Your task to perform on an android device: find snoozed emails in the gmail app Image 0: 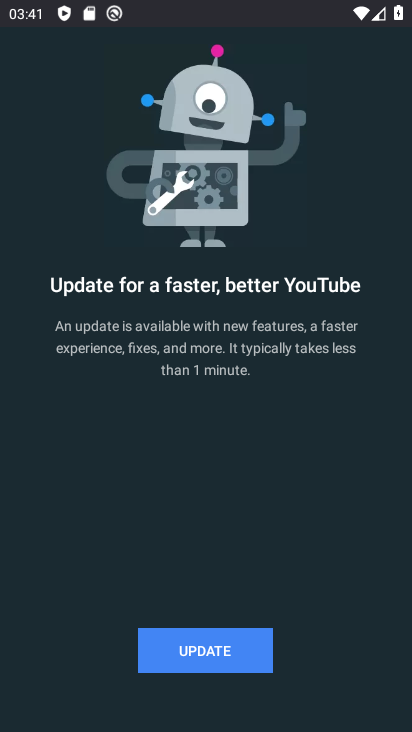
Step 0: press home button
Your task to perform on an android device: find snoozed emails in the gmail app Image 1: 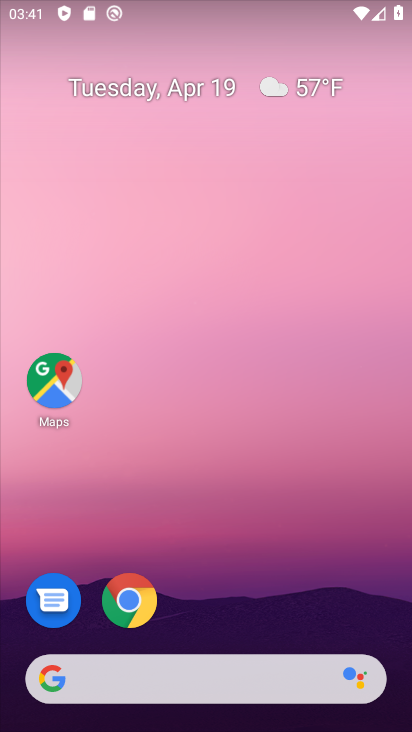
Step 1: drag from (279, 581) to (136, 153)
Your task to perform on an android device: find snoozed emails in the gmail app Image 2: 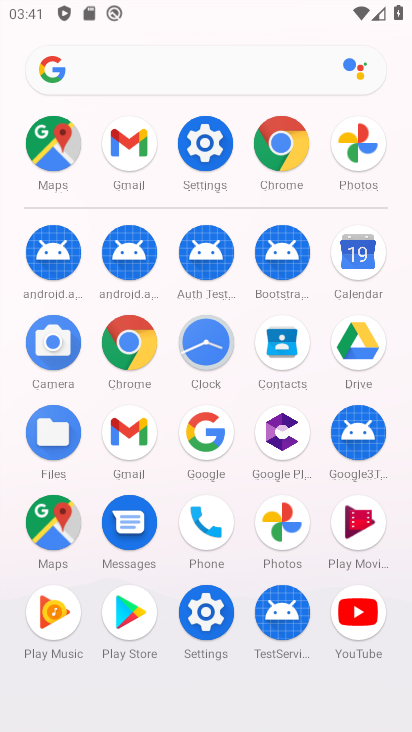
Step 2: click (141, 153)
Your task to perform on an android device: find snoozed emails in the gmail app Image 3: 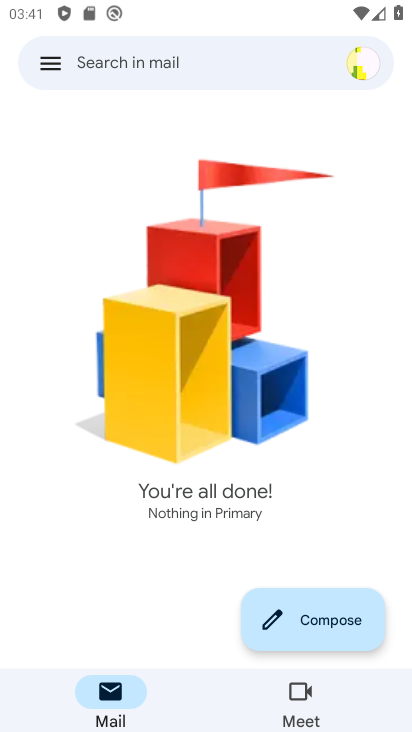
Step 3: click (50, 65)
Your task to perform on an android device: find snoozed emails in the gmail app Image 4: 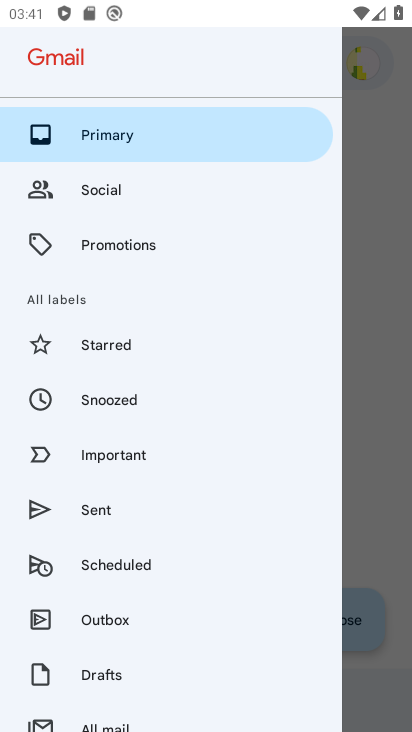
Step 4: click (195, 399)
Your task to perform on an android device: find snoozed emails in the gmail app Image 5: 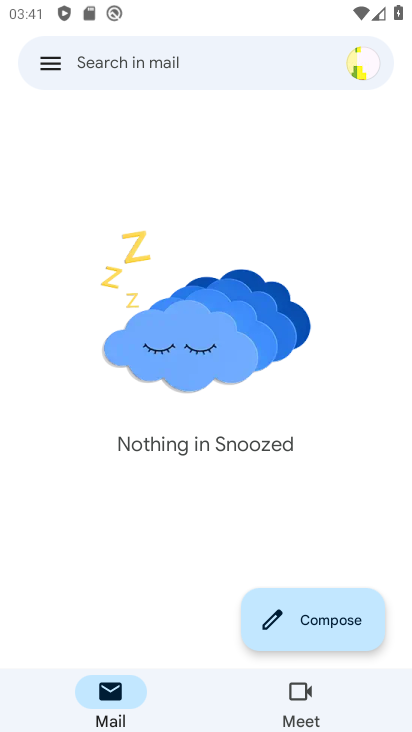
Step 5: task complete